Your task to perform on an android device: turn off improve location accuracy Image 0: 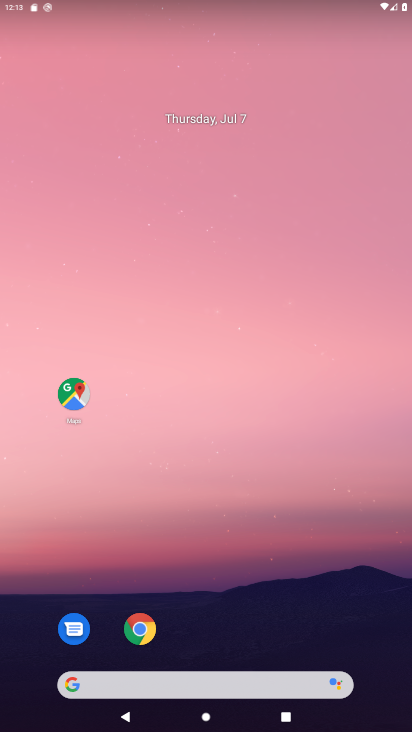
Step 0: drag from (267, 606) to (233, 172)
Your task to perform on an android device: turn off improve location accuracy Image 1: 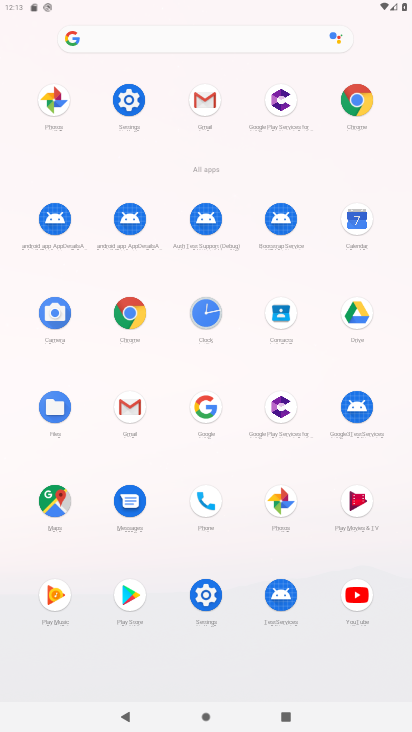
Step 1: click (134, 104)
Your task to perform on an android device: turn off improve location accuracy Image 2: 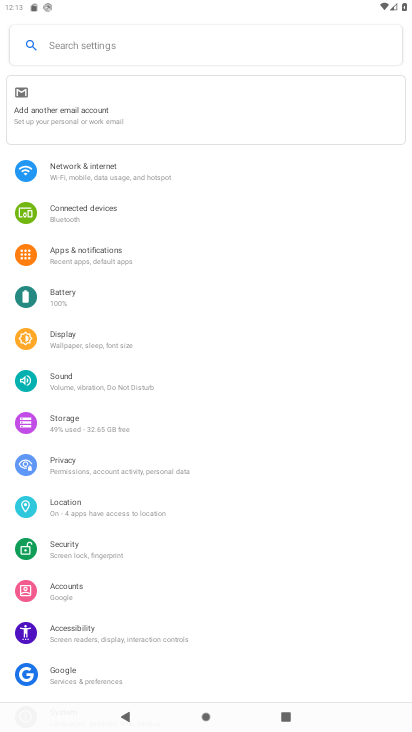
Step 2: click (147, 509)
Your task to perform on an android device: turn off improve location accuracy Image 3: 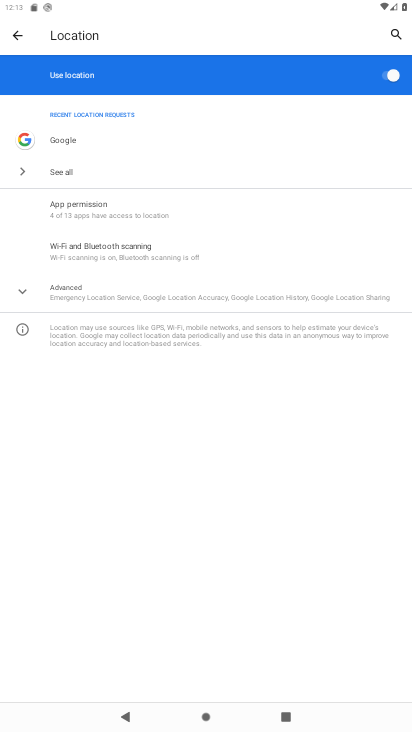
Step 3: click (133, 294)
Your task to perform on an android device: turn off improve location accuracy Image 4: 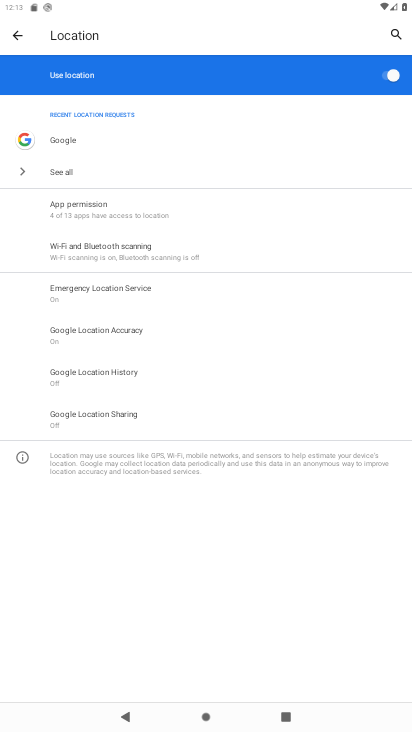
Step 4: click (150, 332)
Your task to perform on an android device: turn off improve location accuracy Image 5: 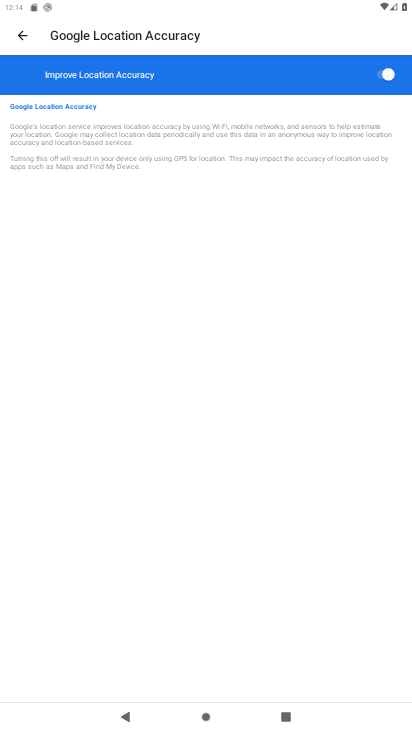
Step 5: click (383, 75)
Your task to perform on an android device: turn off improve location accuracy Image 6: 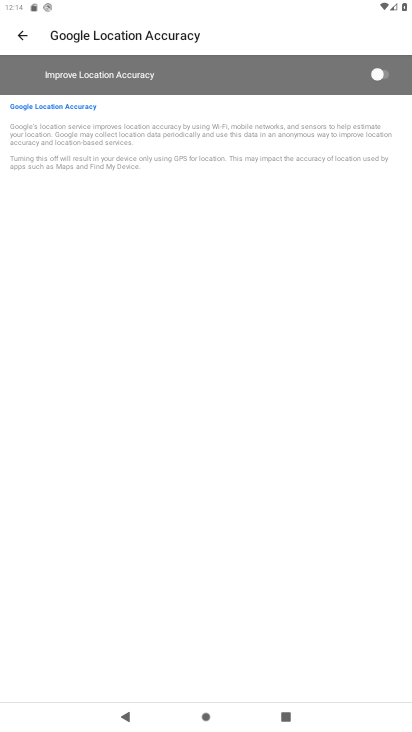
Step 6: task complete